Your task to perform on an android device: move an email to a new category in the gmail app Image 0: 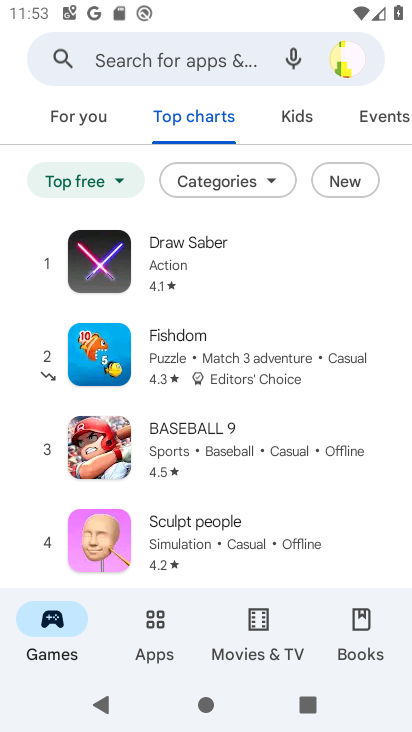
Step 0: press home button
Your task to perform on an android device: move an email to a new category in the gmail app Image 1: 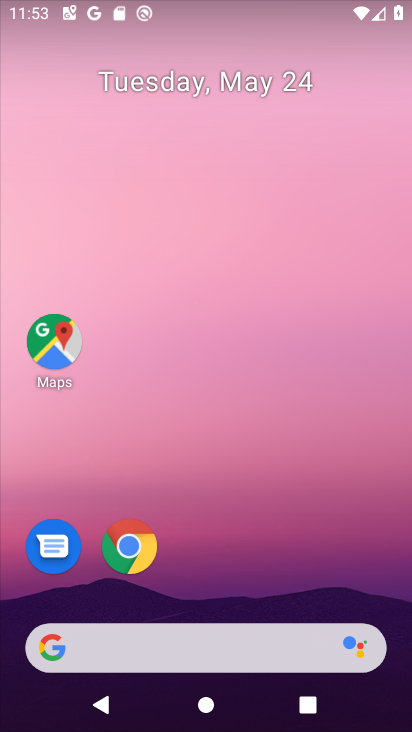
Step 1: drag from (216, 562) to (272, 32)
Your task to perform on an android device: move an email to a new category in the gmail app Image 2: 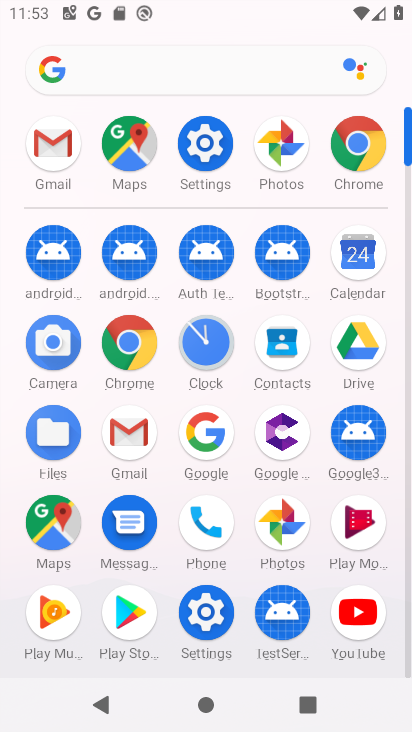
Step 2: click (134, 442)
Your task to perform on an android device: move an email to a new category in the gmail app Image 3: 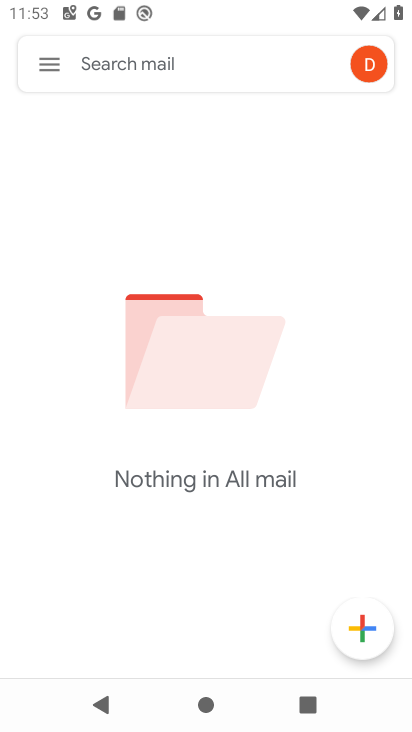
Step 3: task complete